Your task to perform on an android device: move an email to a new category in the gmail app Image 0: 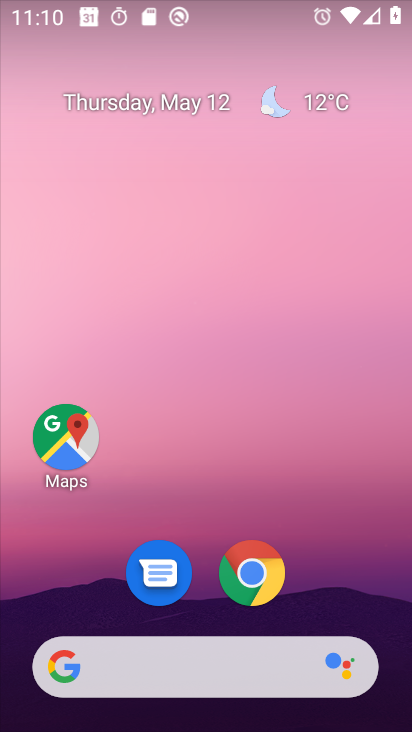
Step 0: drag from (408, 489) to (405, 213)
Your task to perform on an android device: move an email to a new category in the gmail app Image 1: 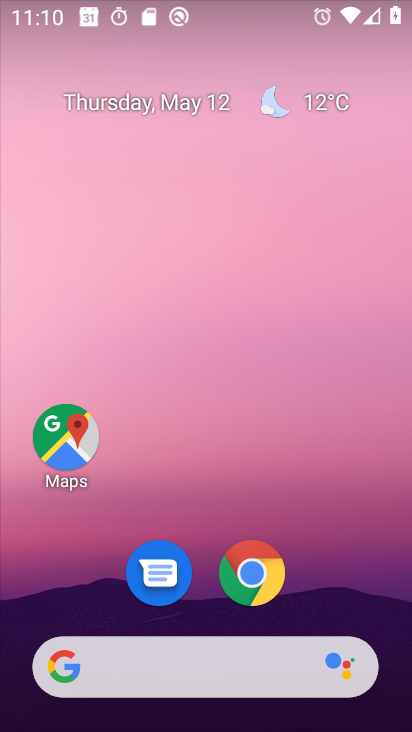
Step 1: drag from (396, 522) to (373, 297)
Your task to perform on an android device: move an email to a new category in the gmail app Image 2: 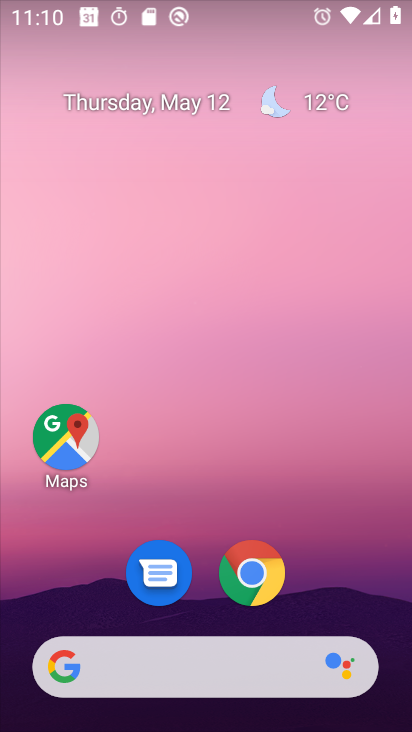
Step 2: click (401, 634)
Your task to perform on an android device: move an email to a new category in the gmail app Image 3: 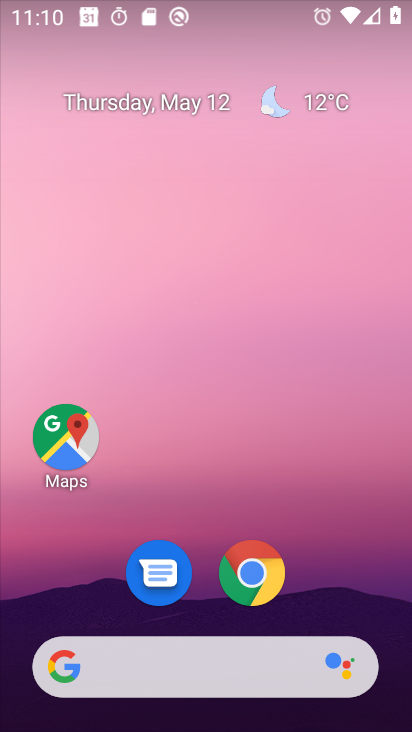
Step 3: drag from (397, 639) to (391, 239)
Your task to perform on an android device: move an email to a new category in the gmail app Image 4: 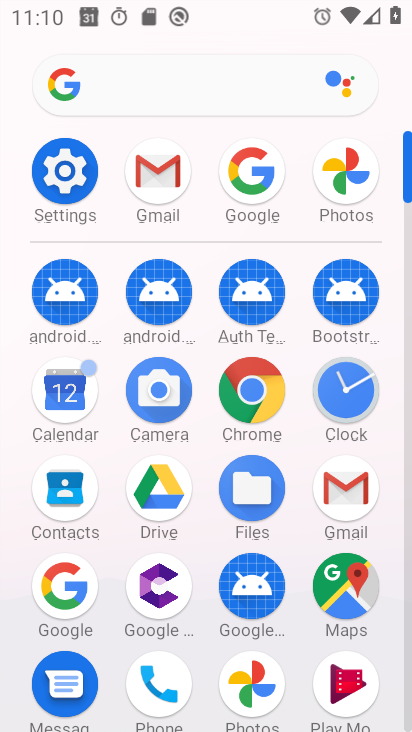
Step 4: click (352, 485)
Your task to perform on an android device: move an email to a new category in the gmail app Image 5: 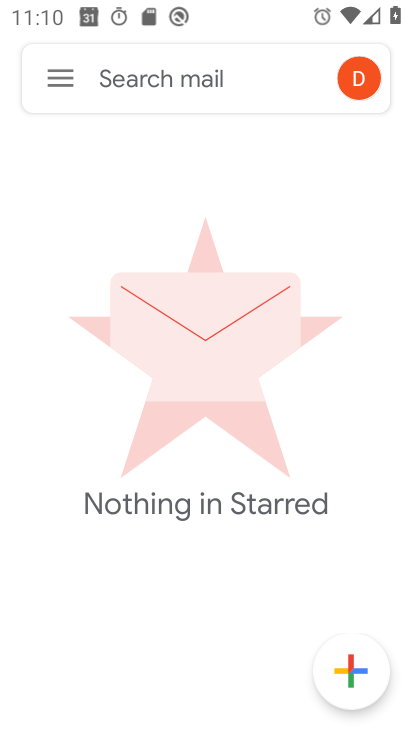
Step 5: click (50, 74)
Your task to perform on an android device: move an email to a new category in the gmail app Image 6: 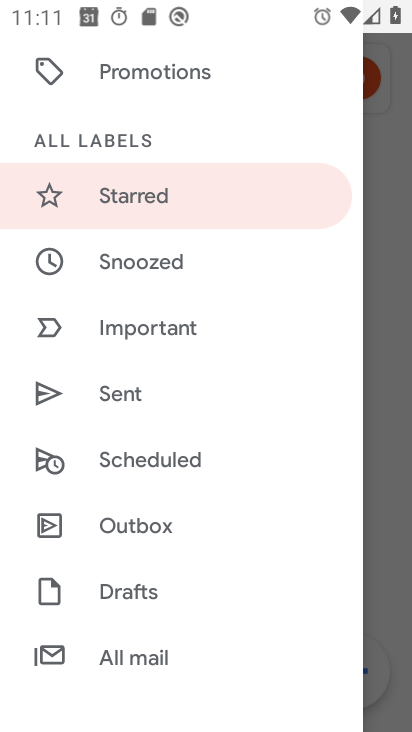
Step 6: drag from (102, 199) to (319, 101)
Your task to perform on an android device: move an email to a new category in the gmail app Image 7: 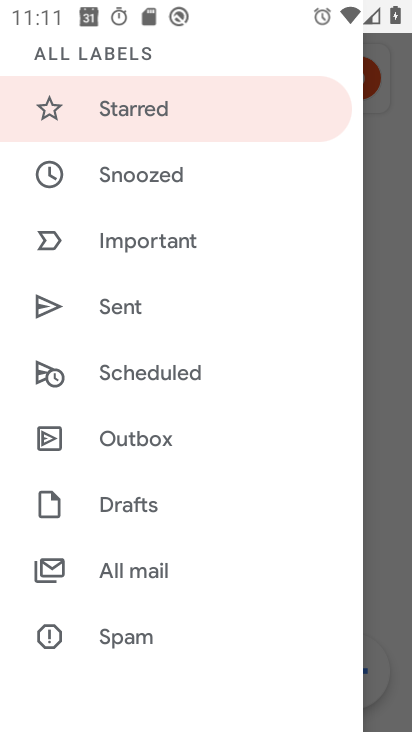
Step 7: drag from (252, 213) to (255, 564)
Your task to perform on an android device: move an email to a new category in the gmail app Image 8: 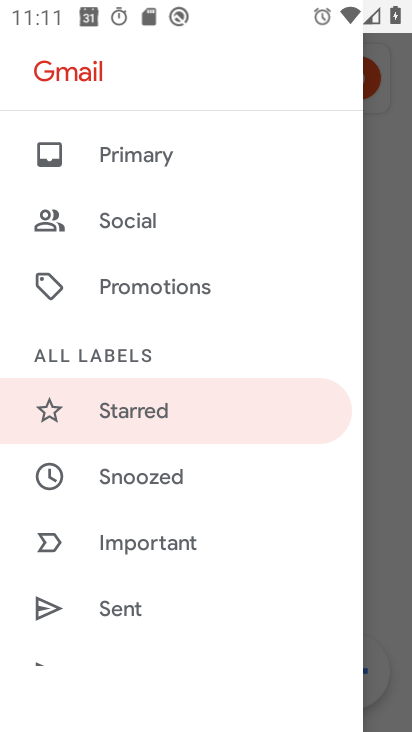
Step 8: drag from (290, 215) to (342, 467)
Your task to perform on an android device: move an email to a new category in the gmail app Image 9: 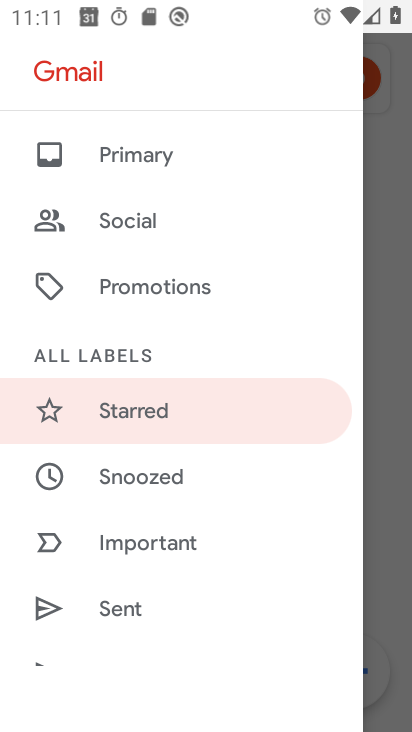
Step 9: drag from (264, 199) to (275, 541)
Your task to perform on an android device: move an email to a new category in the gmail app Image 10: 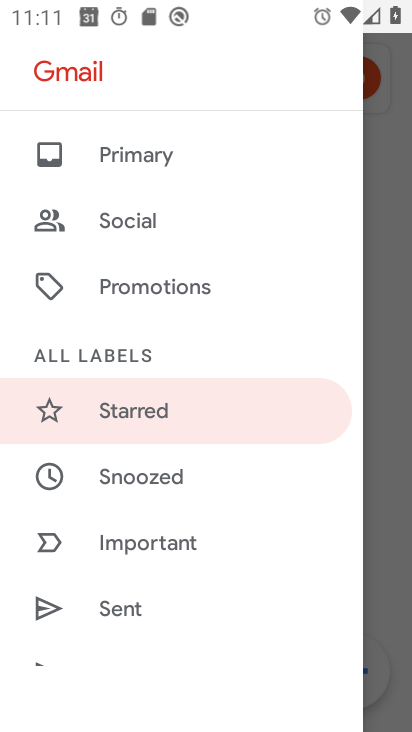
Step 10: drag from (287, 260) to (334, 629)
Your task to perform on an android device: move an email to a new category in the gmail app Image 11: 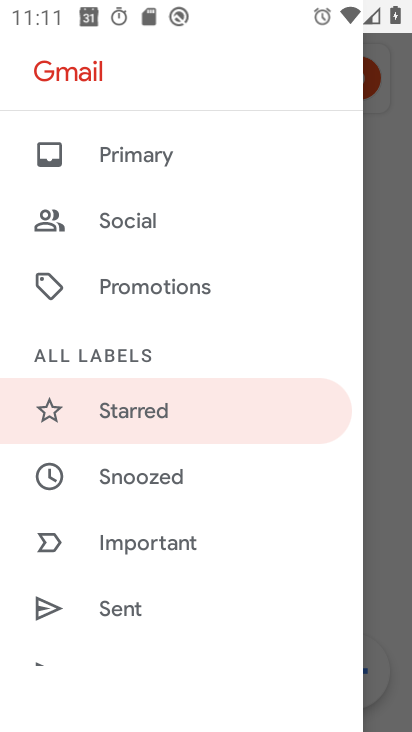
Step 11: press back button
Your task to perform on an android device: move an email to a new category in the gmail app Image 12: 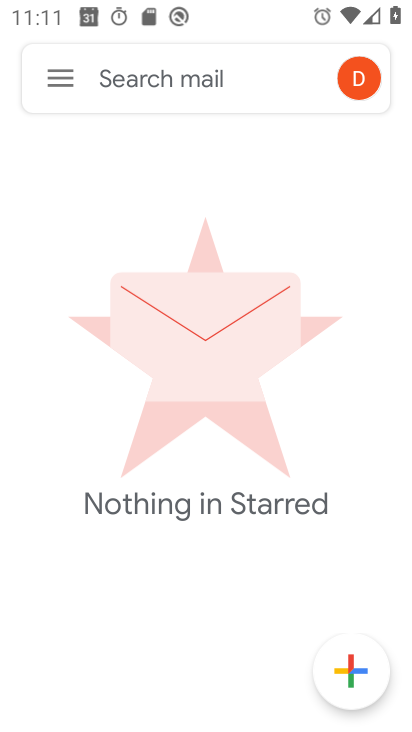
Step 12: click (45, 71)
Your task to perform on an android device: move an email to a new category in the gmail app Image 13: 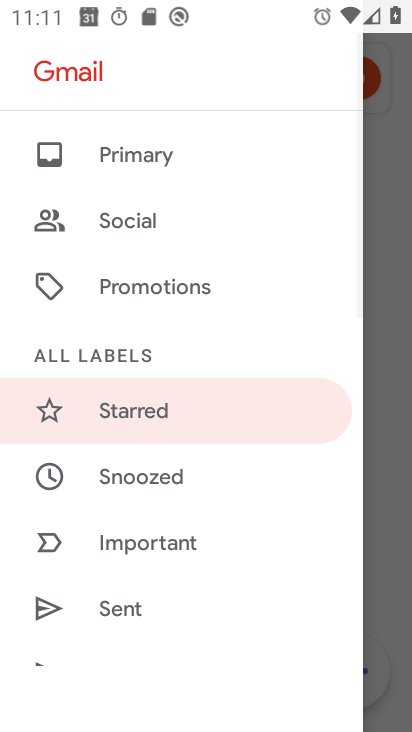
Step 13: drag from (251, 164) to (284, 439)
Your task to perform on an android device: move an email to a new category in the gmail app Image 14: 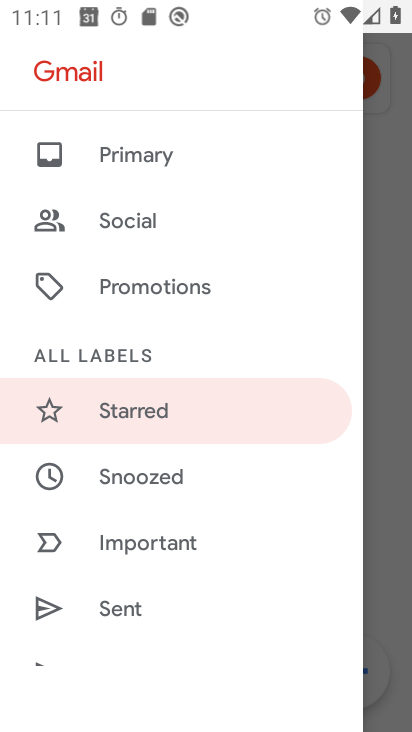
Step 14: drag from (282, 136) to (314, 469)
Your task to perform on an android device: move an email to a new category in the gmail app Image 15: 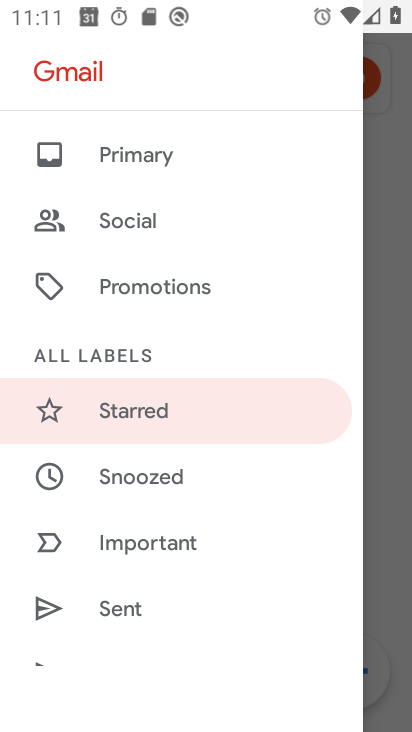
Step 15: drag from (255, 225) to (277, 472)
Your task to perform on an android device: move an email to a new category in the gmail app Image 16: 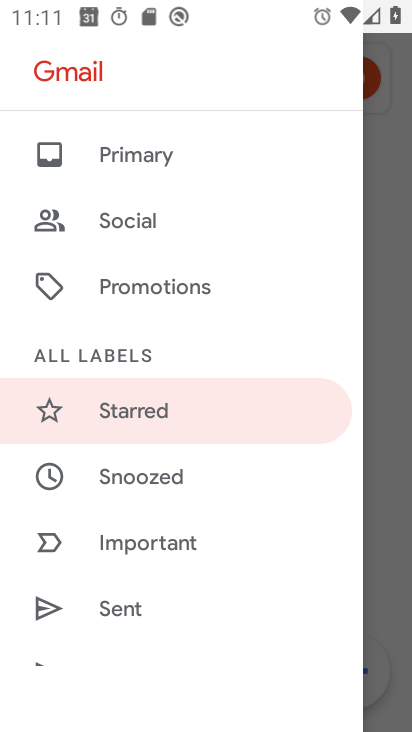
Step 16: drag from (259, 204) to (269, 551)
Your task to perform on an android device: move an email to a new category in the gmail app Image 17: 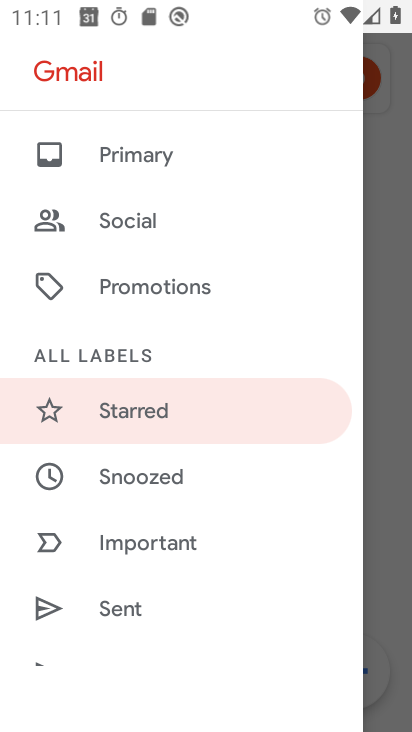
Step 17: click (109, 163)
Your task to perform on an android device: move an email to a new category in the gmail app Image 18: 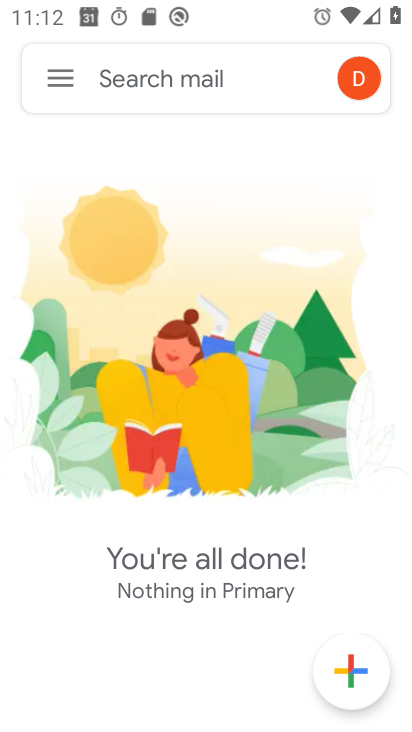
Step 18: task complete